Your task to perform on an android device: Open privacy settings Image 0: 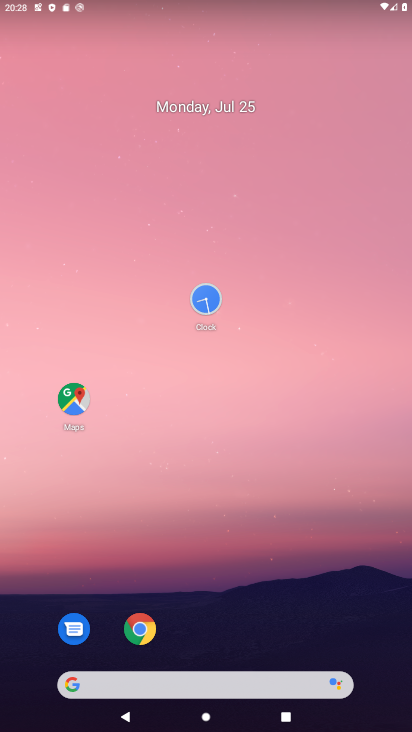
Step 0: drag from (212, 644) to (211, 1)
Your task to perform on an android device: Open privacy settings Image 1: 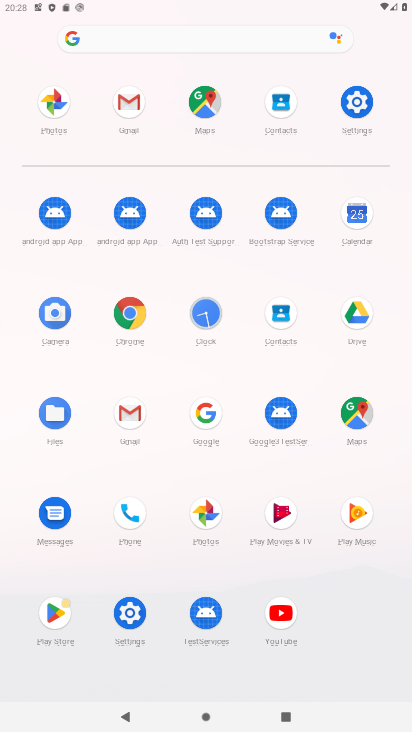
Step 1: click (134, 628)
Your task to perform on an android device: Open privacy settings Image 2: 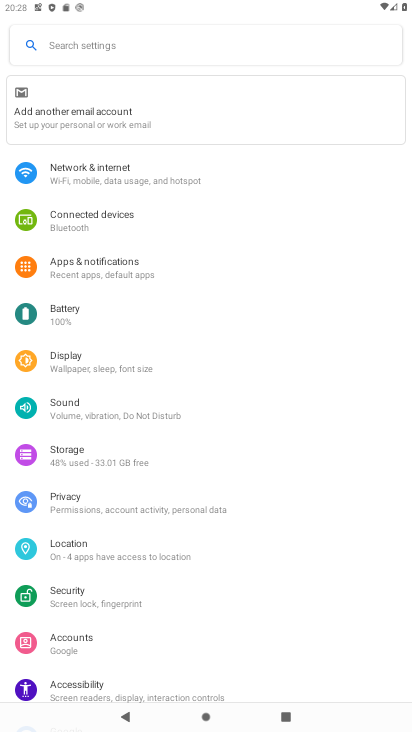
Step 2: click (121, 509)
Your task to perform on an android device: Open privacy settings Image 3: 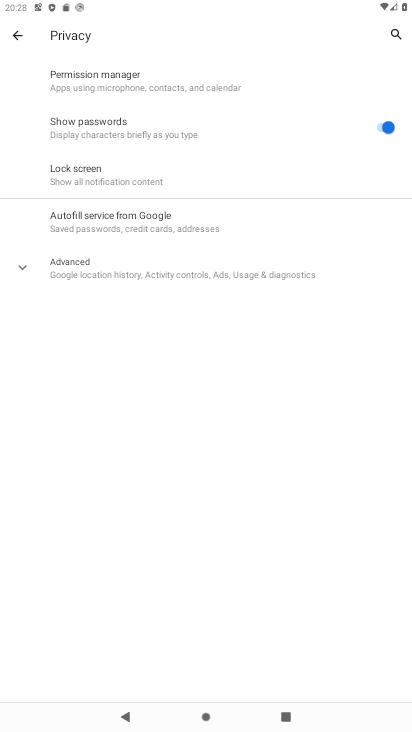
Step 3: task complete